Your task to perform on an android device: change alarm snooze length Image 0: 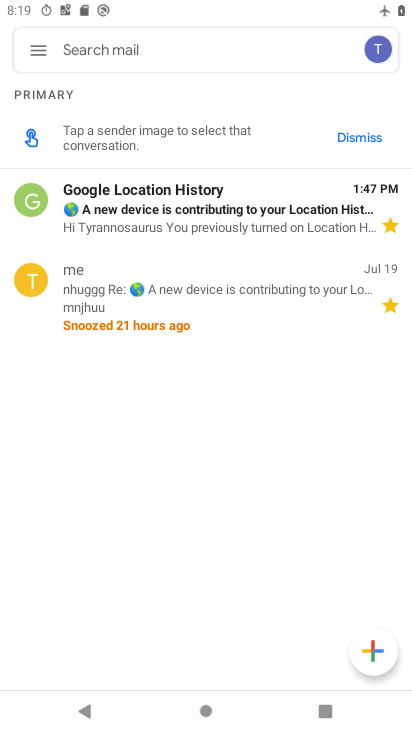
Step 0: press back button
Your task to perform on an android device: change alarm snooze length Image 1: 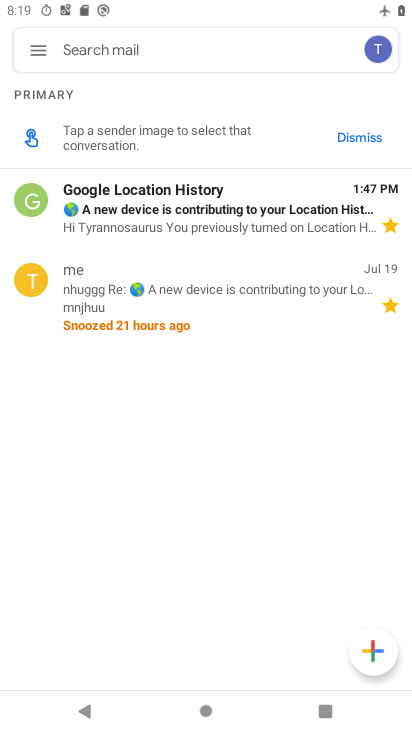
Step 1: press back button
Your task to perform on an android device: change alarm snooze length Image 2: 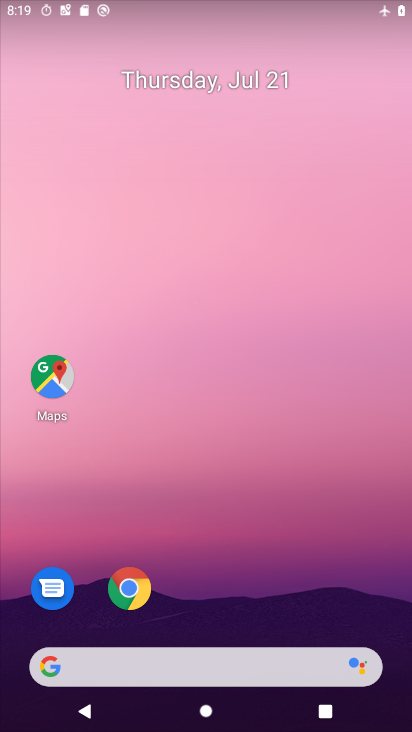
Step 2: drag from (239, 611) to (239, 291)
Your task to perform on an android device: change alarm snooze length Image 3: 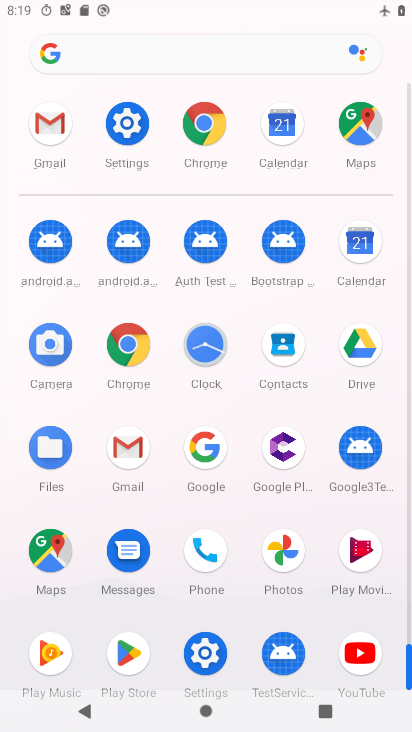
Step 3: click (196, 346)
Your task to perform on an android device: change alarm snooze length Image 4: 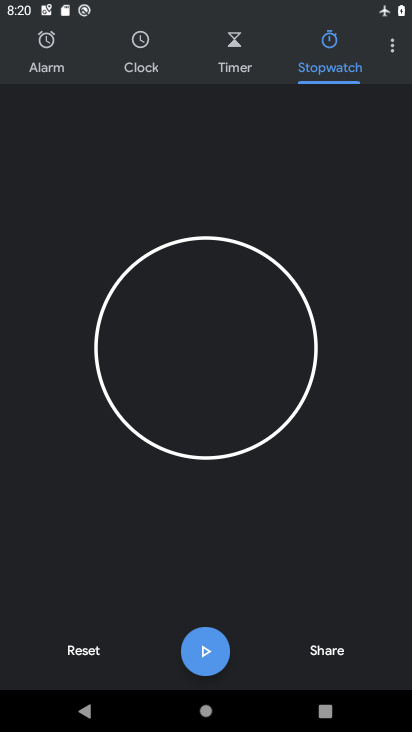
Step 4: click (396, 47)
Your task to perform on an android device: change alarm snooze length Image 5: 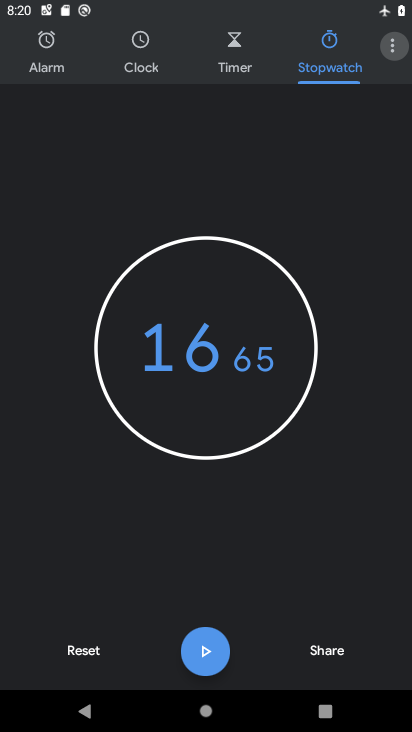
Step 5: click (396, 47)
Your task to perform on an android device: change alarm snooze length Image 6: 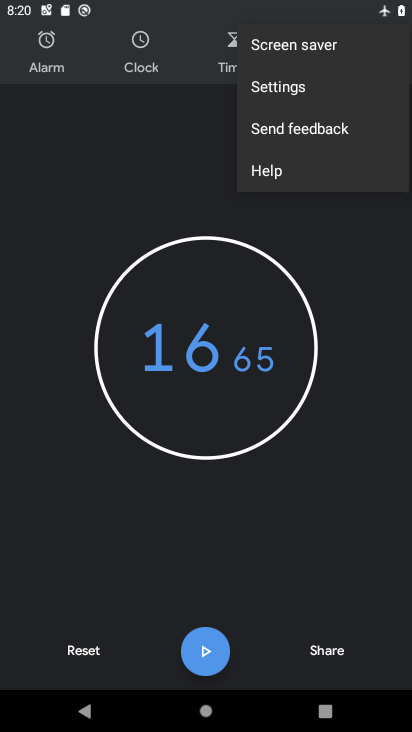
Step 6: click (273, 84)
Your task to perform on an android device: change alarm snooze length Image 7: 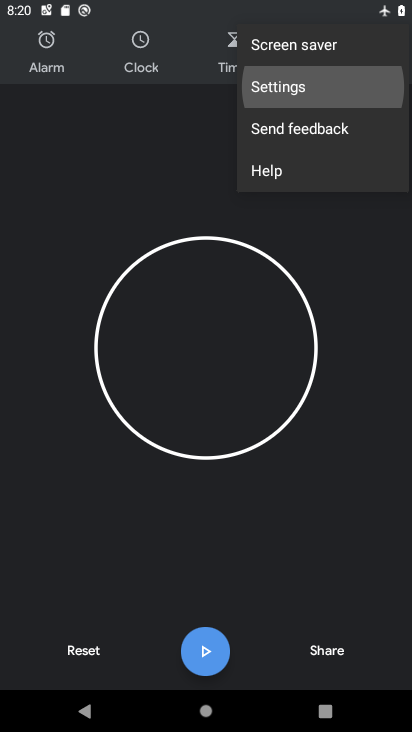
Step 7: click (276, 80)
Your task to perform on an android device: change alarm snooze length Image 8: 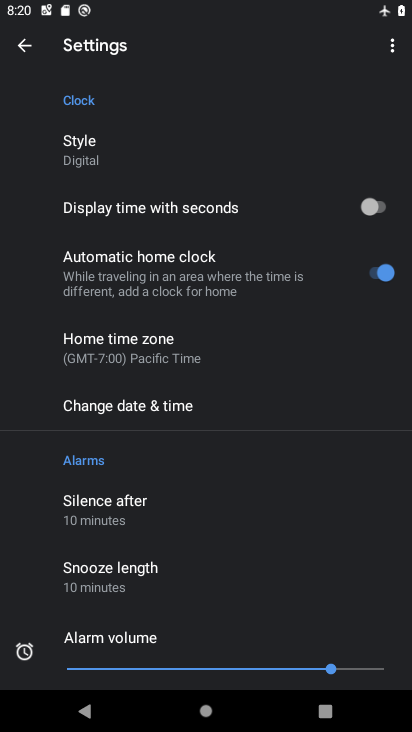
Step 8: click (106, 576)
Your task to perform on an android device: change alarm snooze length Image 9: 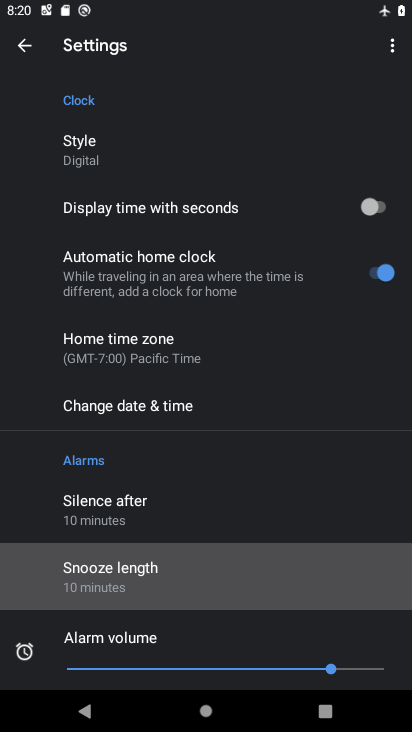
Step 9: click (101, 578)
Your task to perform on an android device: change alarm snooze length Image 10: 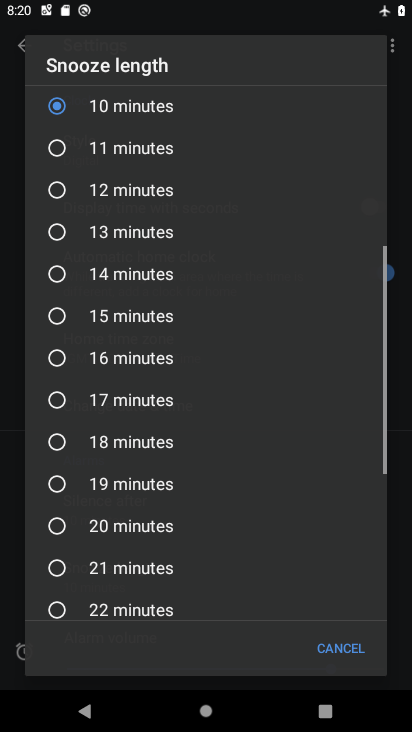
Step 10: click (102, 579)
Your task to perform on an android device: change alarm snooze length Image 11: 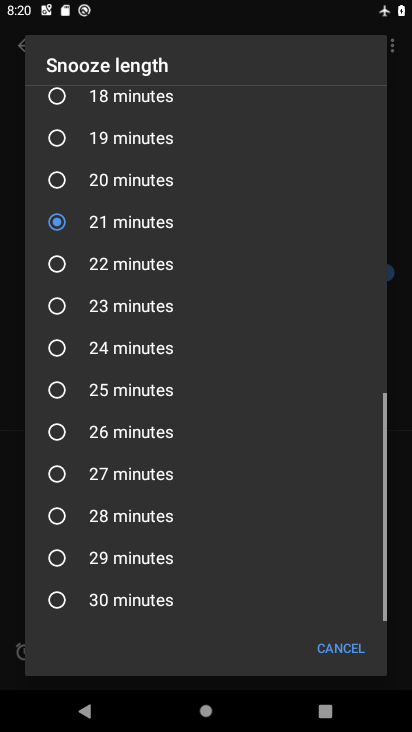
Step 11: click (58, 478)
Your task to perform on an android device: change alarm snooze length Image 12: 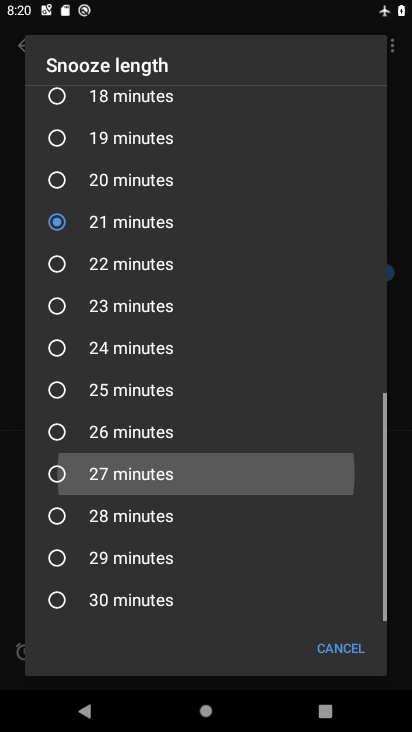
Step 12: click (58, 478)
Your task to perform on an android device: change alarm snooze length Image 13: 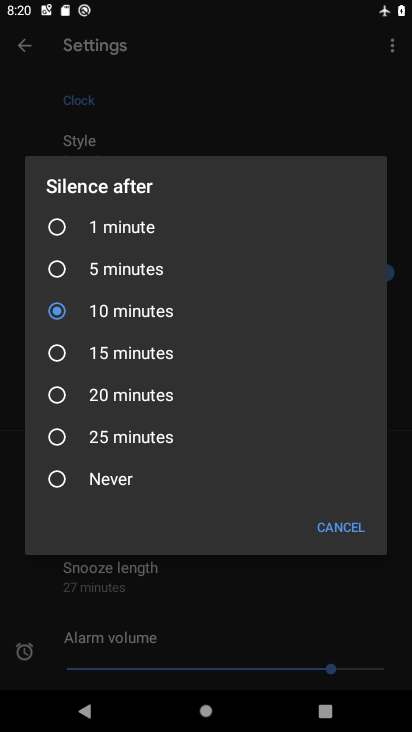
Step 13: task complete